Your task to perform on an android device: turn off data saver in the chrome app Image 0: 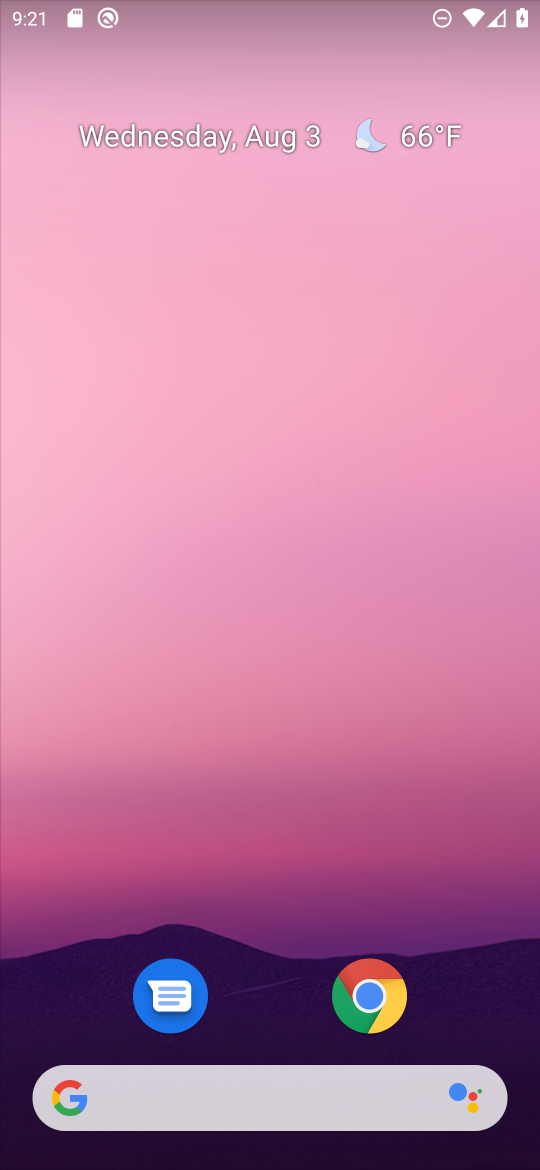
Step 0: click (364, 988)
Your task to perform on an android device: turn off data saver in the chrome app Image 1: 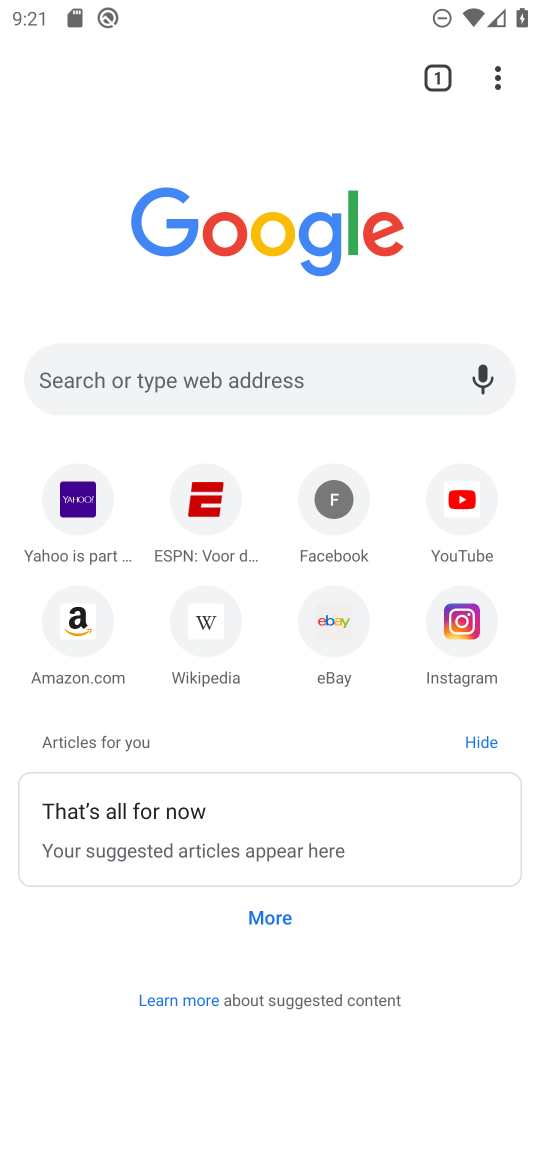
Step 1: click (495, 81)
Your task to perform on an android device: turn off data saver in the chrome app Image 2: 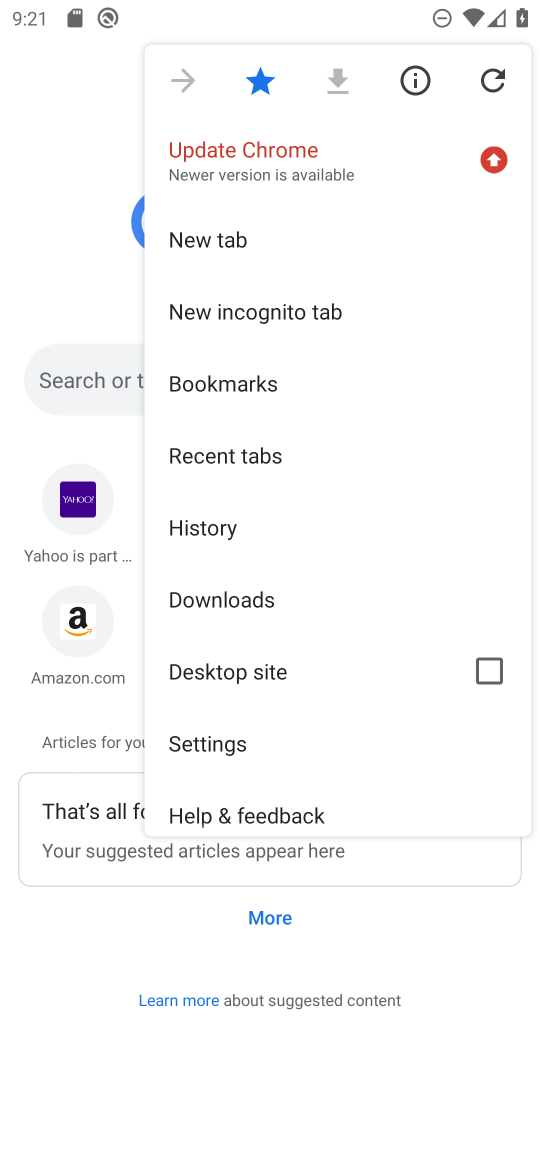
Step 2: click (247, 736)
Your task to perform on an android device: turn off data saver in the chrome app Image 3: 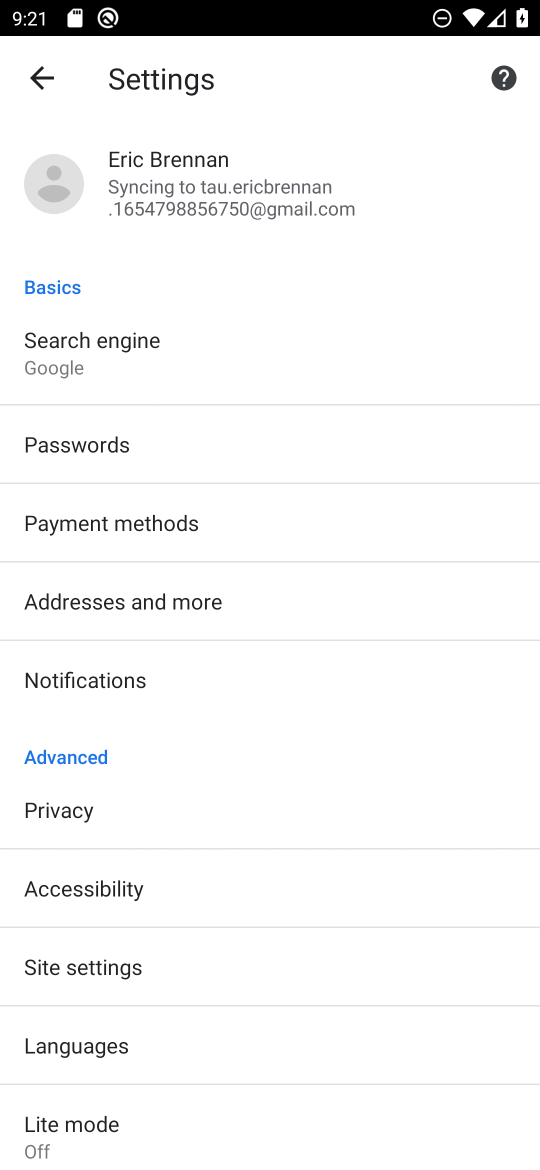
Step 3: click (194, 1133)
Your task to perform on an android device: turn off data saver in the chrome app Image 4: 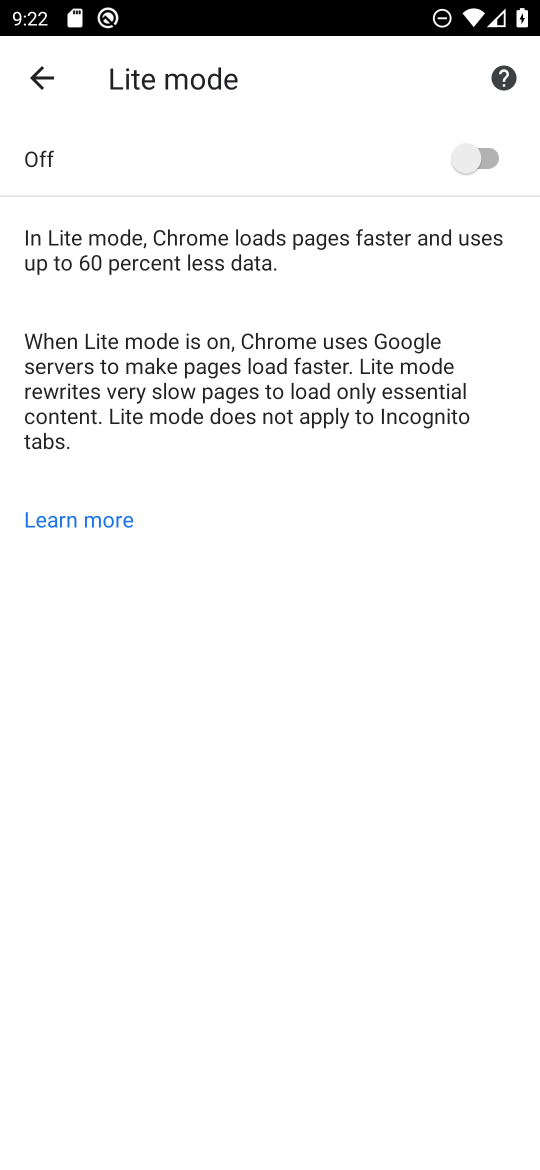
Step 4: task complete